Your task to perform on an android device: Check the news Image 0: 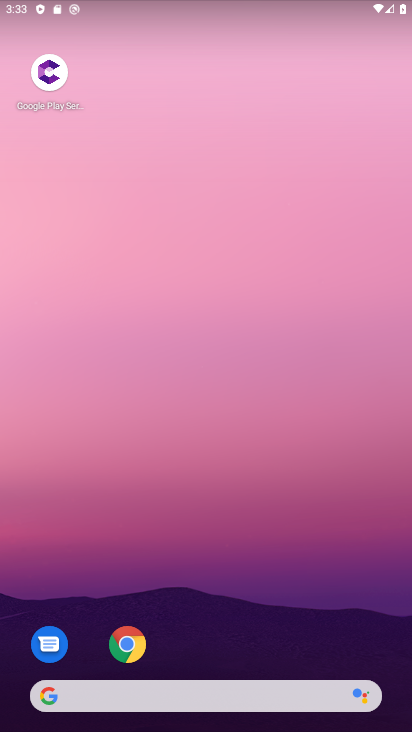
Step 0: click (113, 641)
Your task to perform on an android device: Check the news Image 1: 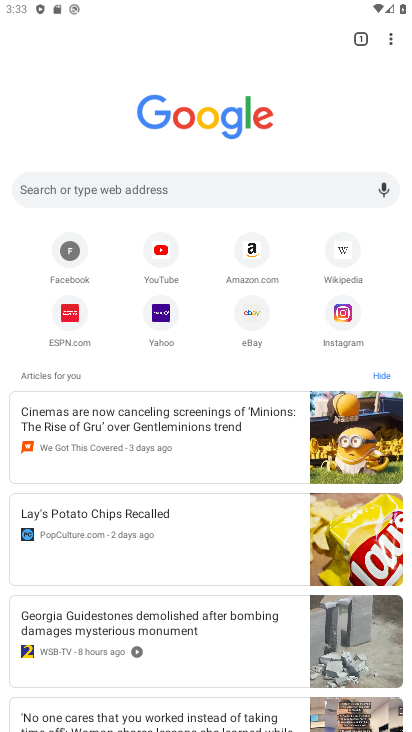
Step 1: click (125, 188)
Your task to perform on an android device: Check the news Image 2: 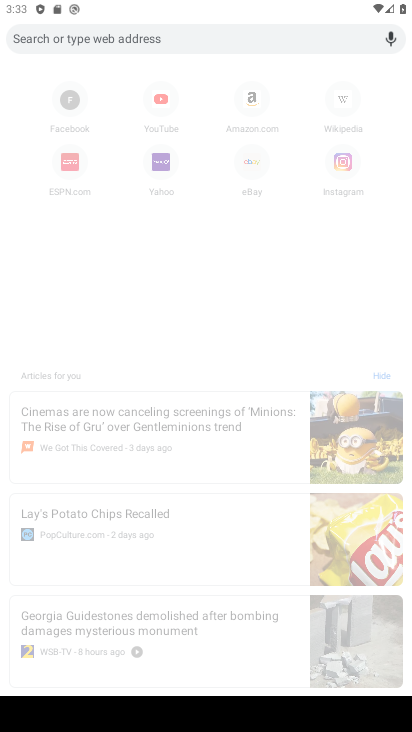
Step 2: type "news"
Your task to perform on an android device: Check the news Image 3: 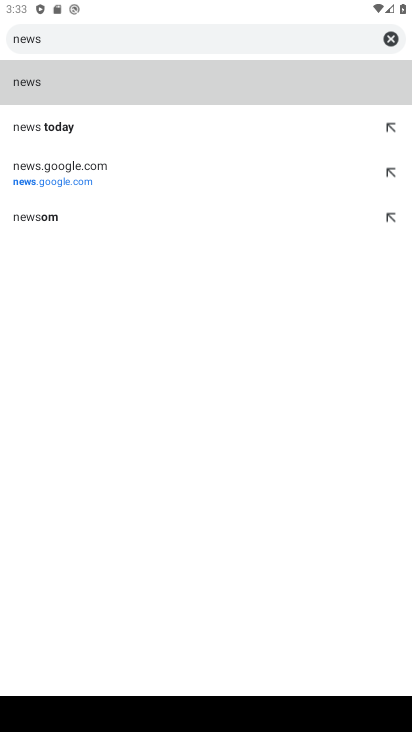
Step 3: click (125, 70)
Your task to perform on an android device: Check the news Image 4: 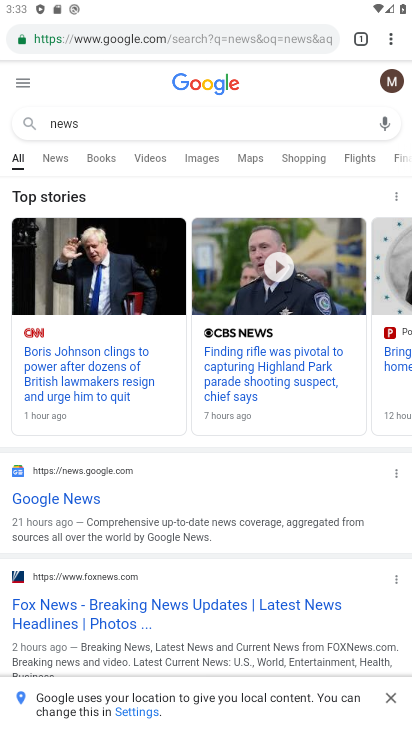
Step 4: task complete